Your task to perform on an android device: Go to CNN.com Image 0: 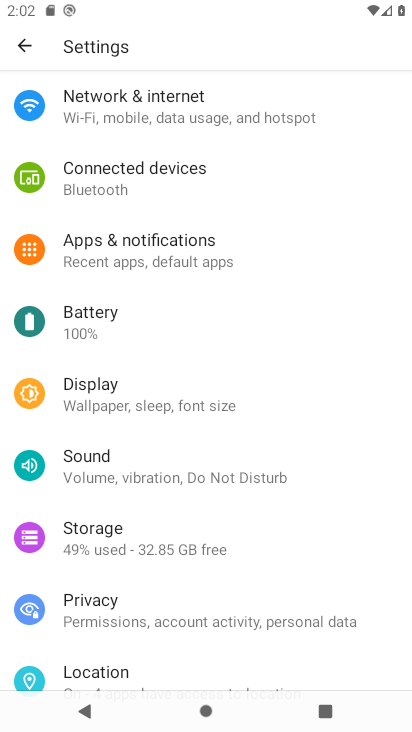
Step 0: press home button
Your task to perform on an android device: Go to CNN.com Image 1: 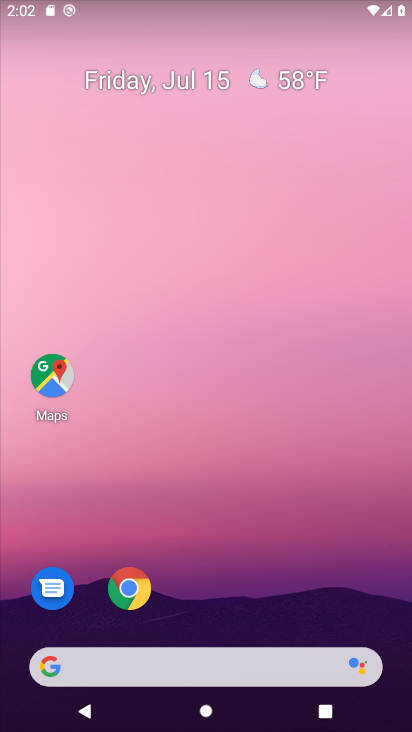
Step 1: click (131, 588)
Your task to perform on an android device: Go to CNN.com Image 2: 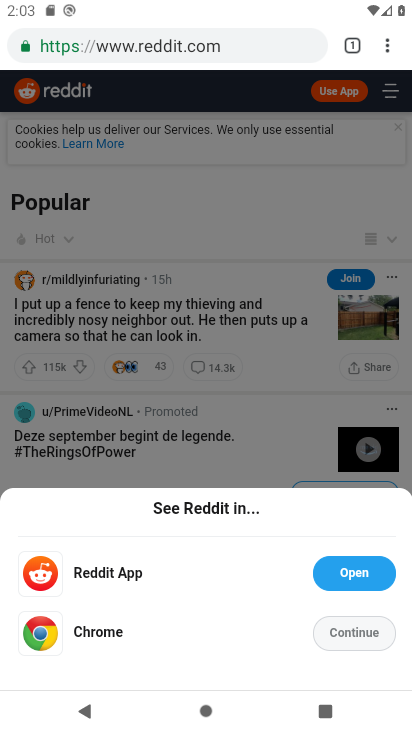
Step 2: click (232, 40)
Your task to perform on an android device: Go to CNN.com Image 3: 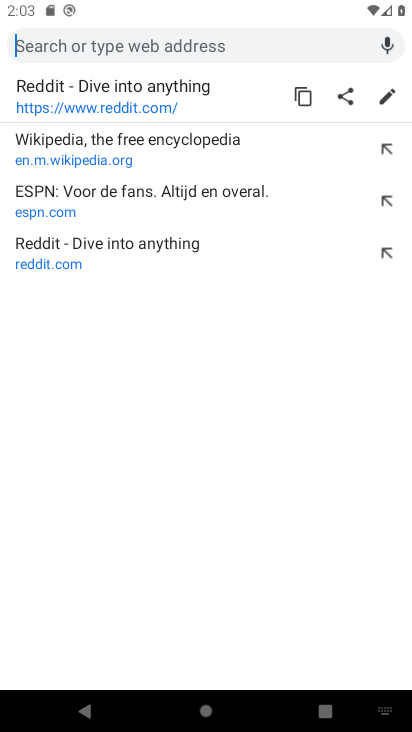
Step 3: type "CNN.com"
Your task to perform on an android device: Go to CNN.com Image 4: 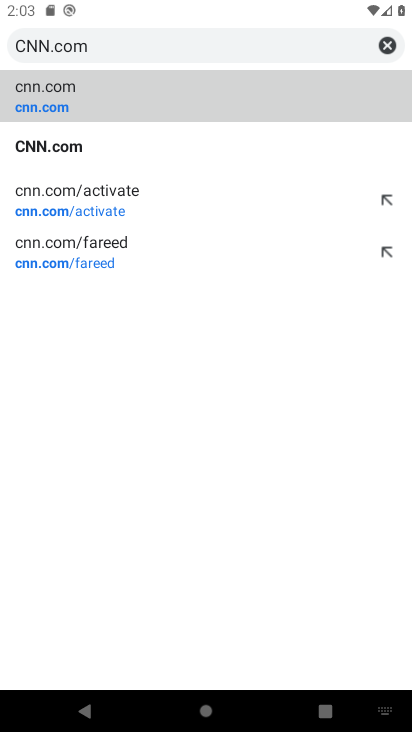
Step 4: click (51, 95)
Your task to perform on an android device: Go to CNN.com Image 5: 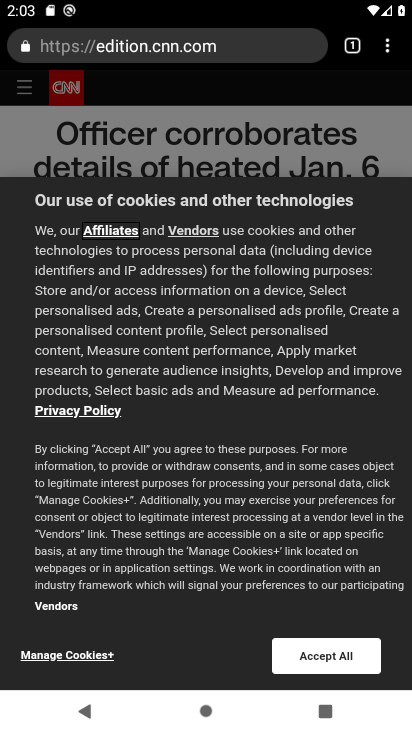
Step 5: task complete